Your task to perform on an android device: change text size in settings app Image 0: 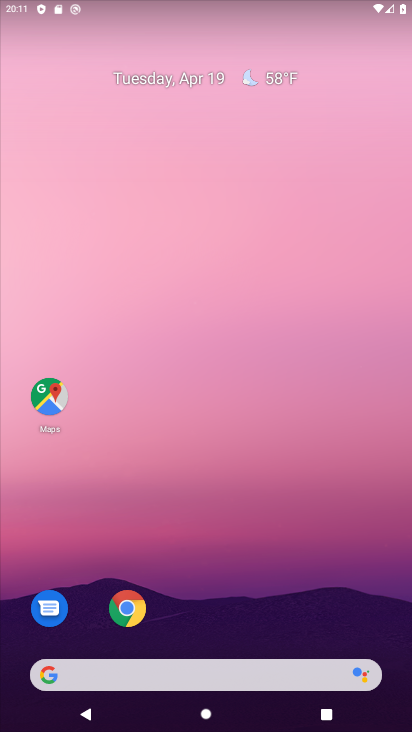
Step 0: drag from (212, 628) to (241, 52)
Your task to perform on an android device: change text size in settings app Image 1: 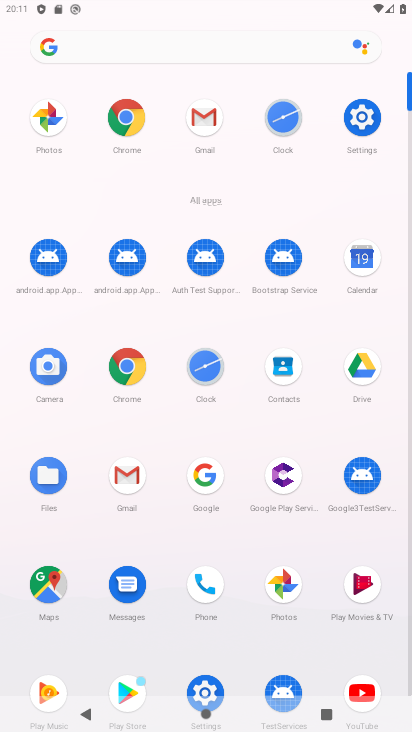
Step 1: click (360, 116)
Your task to perform on an android device: change text size in settings app Image 2: 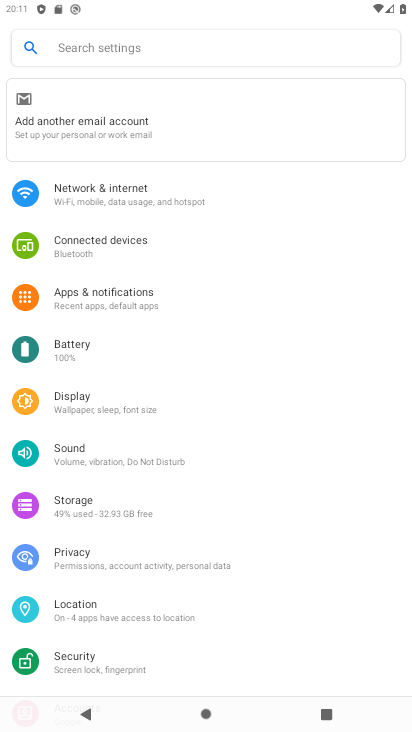
Step 2: drag from (216, 530) to (282, 441)
Your task to perform on an android device: change text size in settings app Image 3: 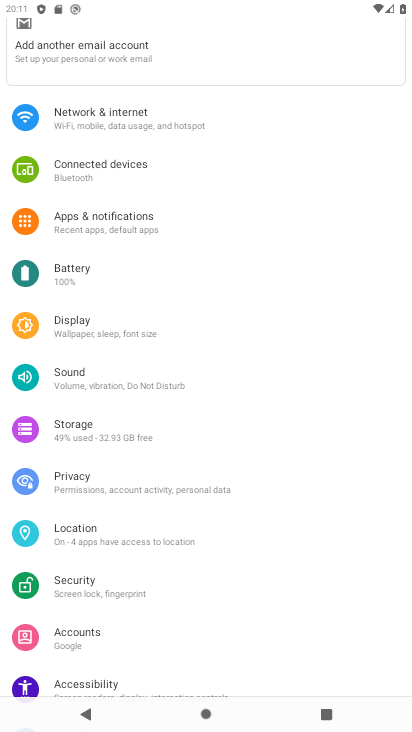
Step 3: drag from (211, 570) to (280, 453)
Your task to perform on an android device: change text size in settings app Image 4: 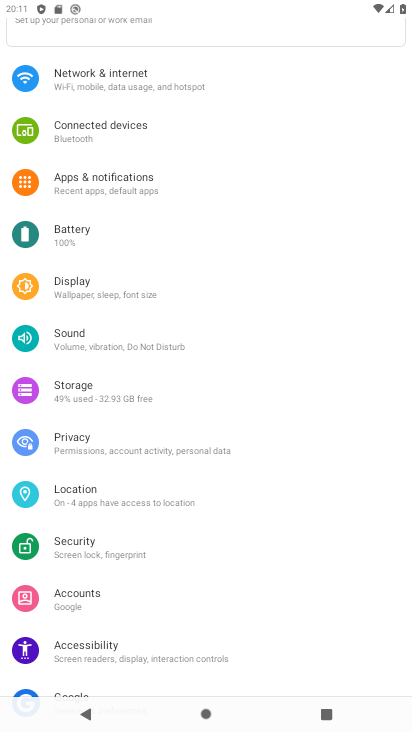
Step 4: click (109, 646)
Your task to perform on an android device: change text size in settings app Image 5: 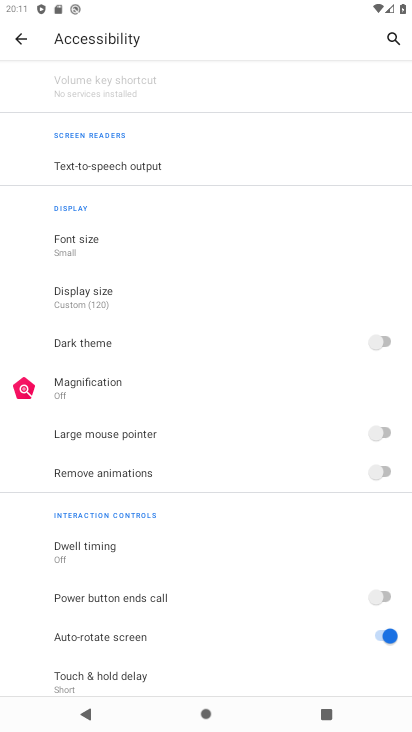
Step 5: click (97, 238)
Your task to perform on an android device: change text size in settings app Image 6: 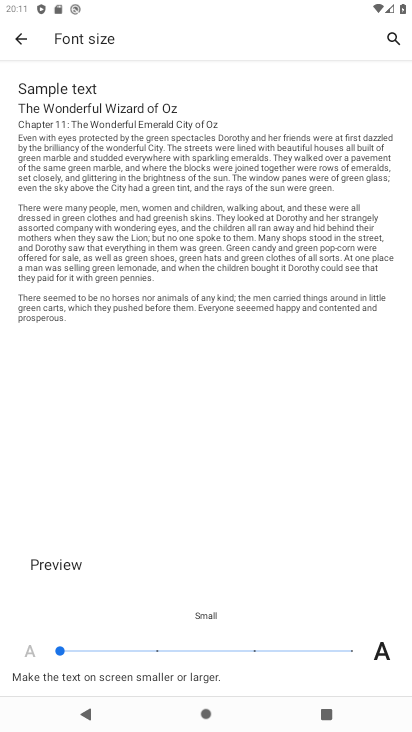
Step 6: click (251, 655)
Your task to perform on an android device: change text size in settings app Image 7: 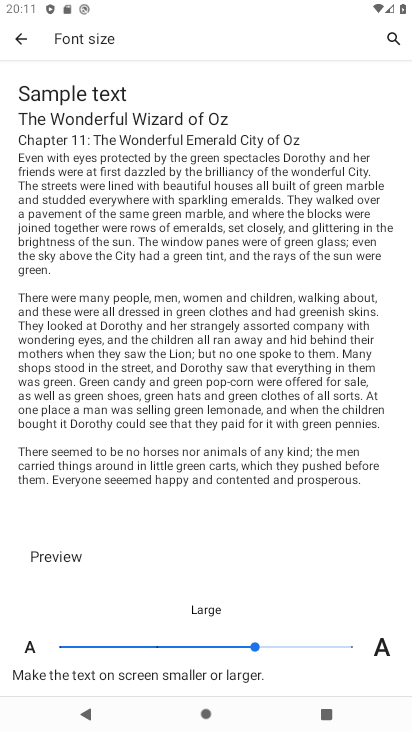
Step 7: task complete